Your task to perform on an android device: Open Google Chrome Image 0: 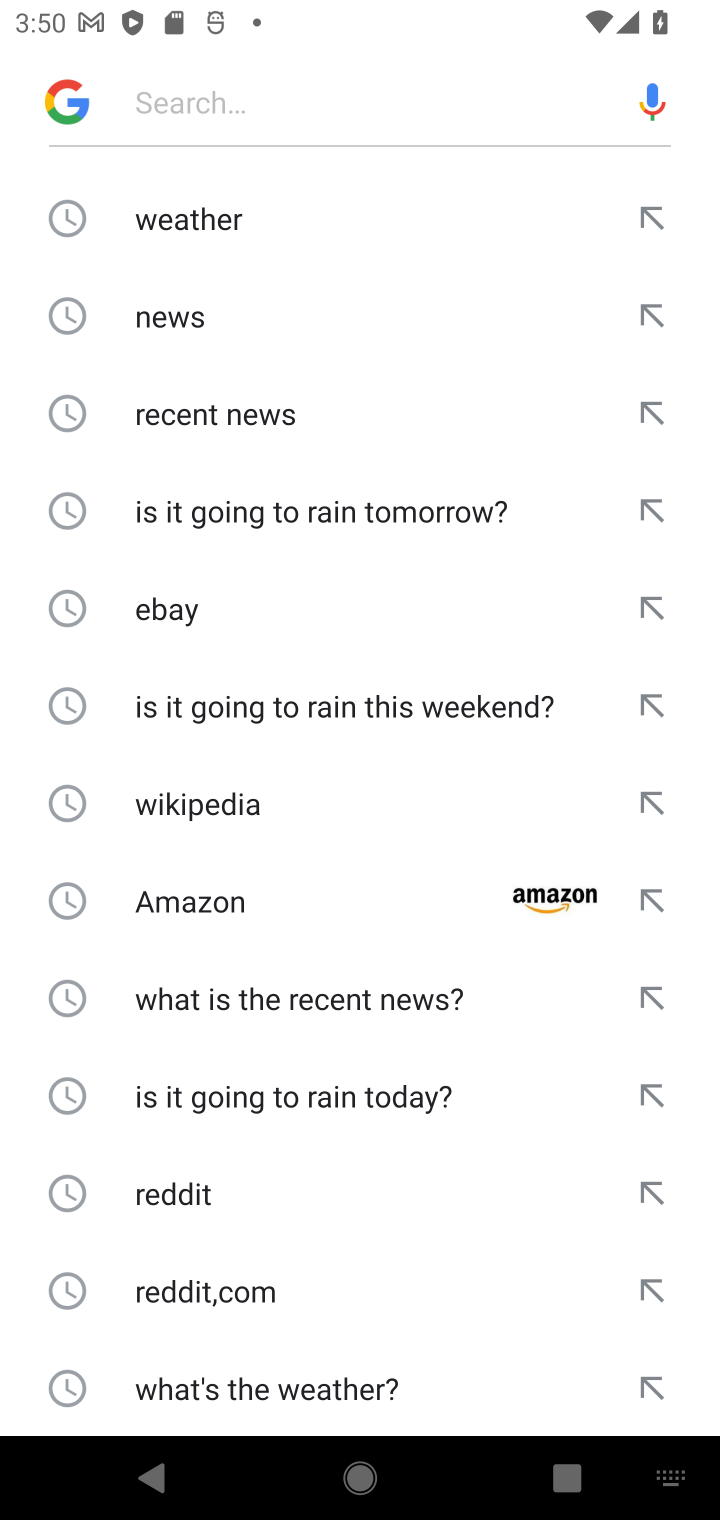
Step 0: press home button
Your task to perform on an android device: Open Google Chrome Image 1: 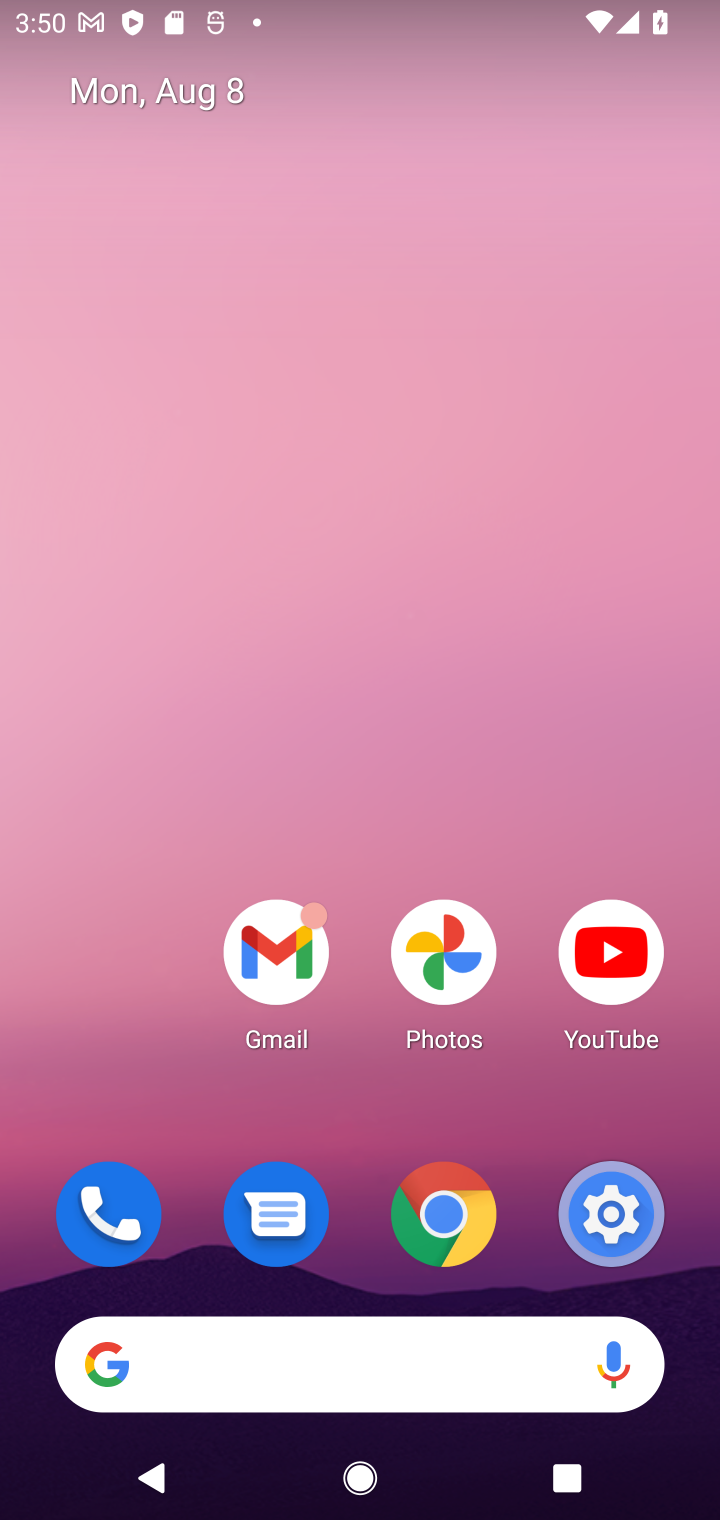
Step 1: drag from (343, 1294) to (328, 181)
Your task to perform on an android device: Open Google Chrome Image 2: 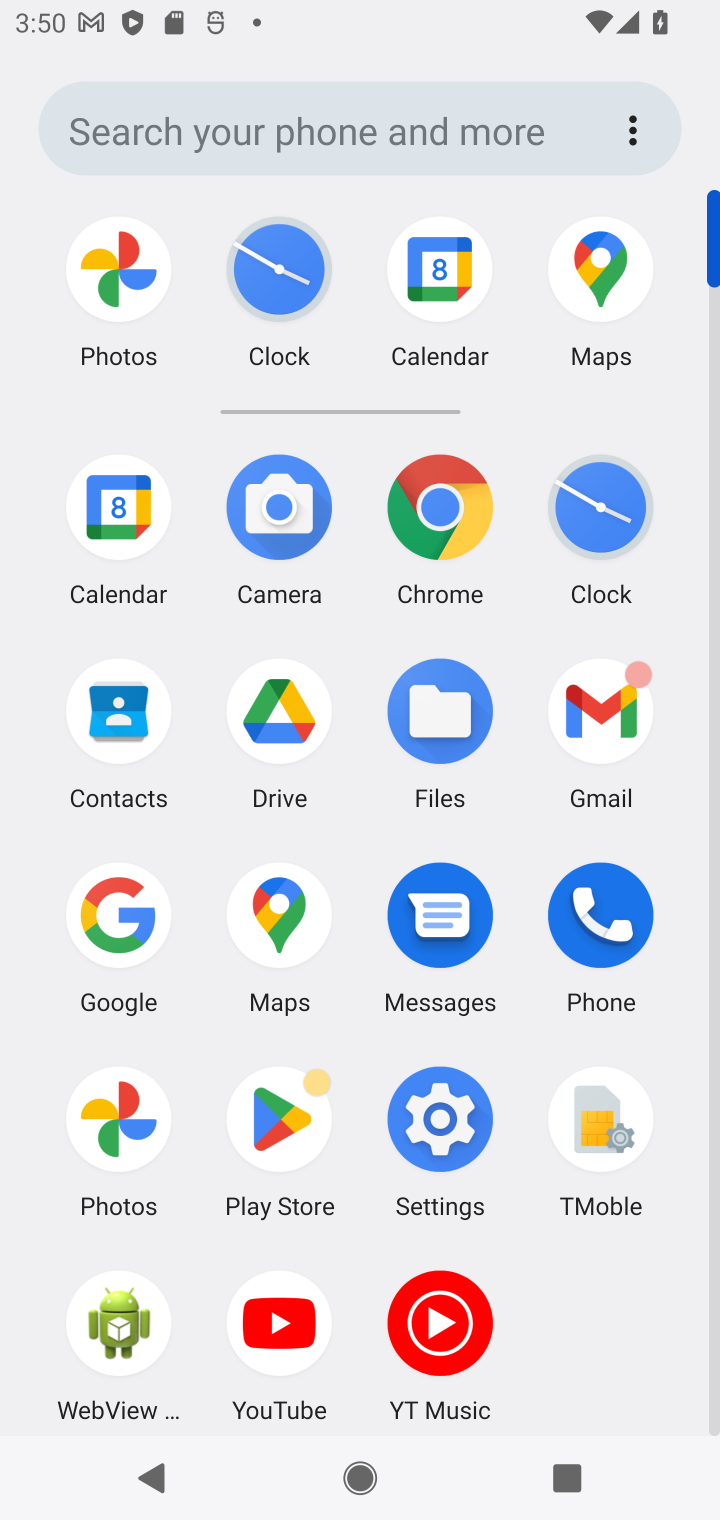
Step 2: click (441, 506)
Your task to perform on an android device: Open Google Chrome Image 3: 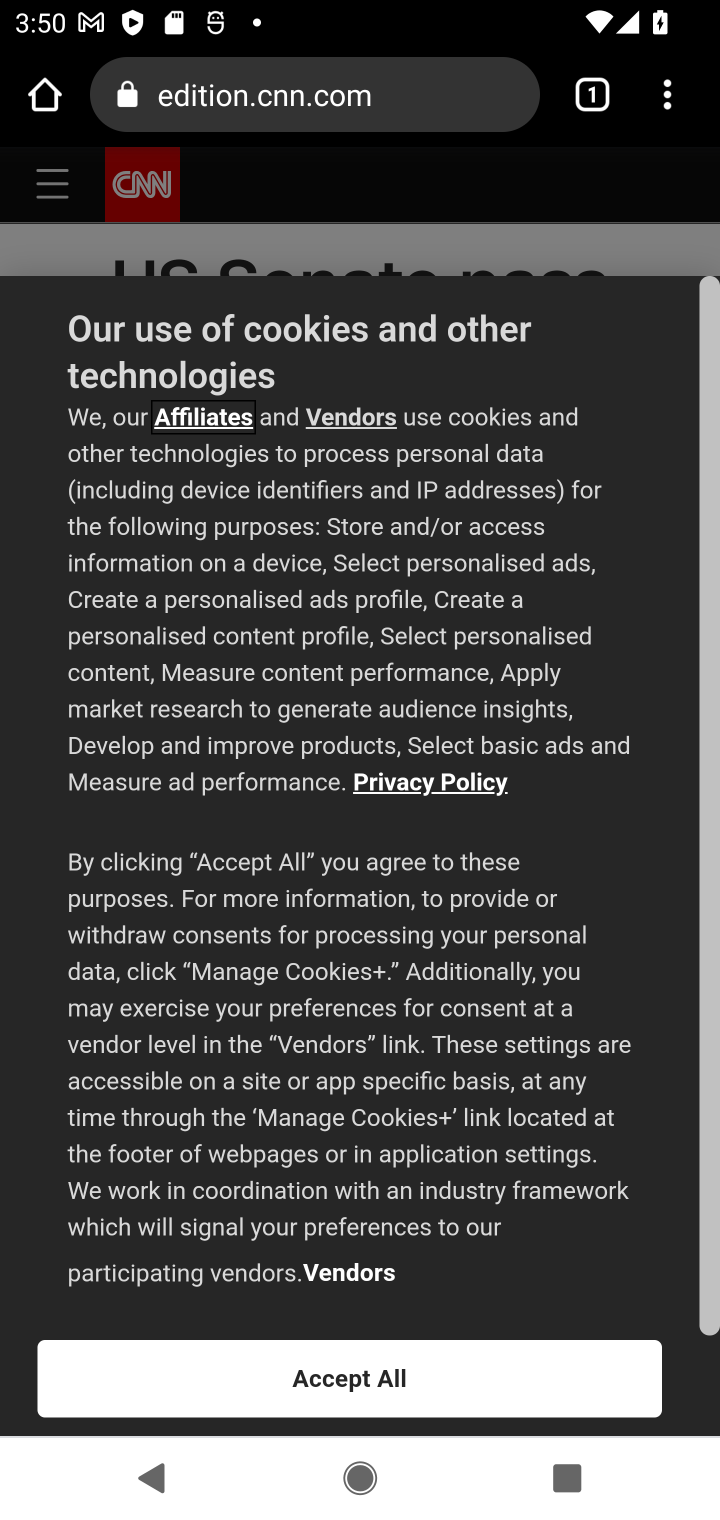
Step 3: task complete